Your task to perform on an android device: toggle data saver in the chrome app Image 0: 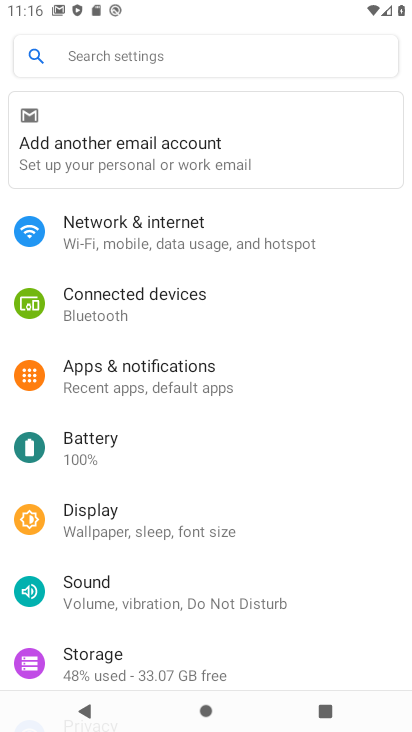
Step 0: press home button
Your task to perform on an android device: toggle data saver in the chrome app Image 1: 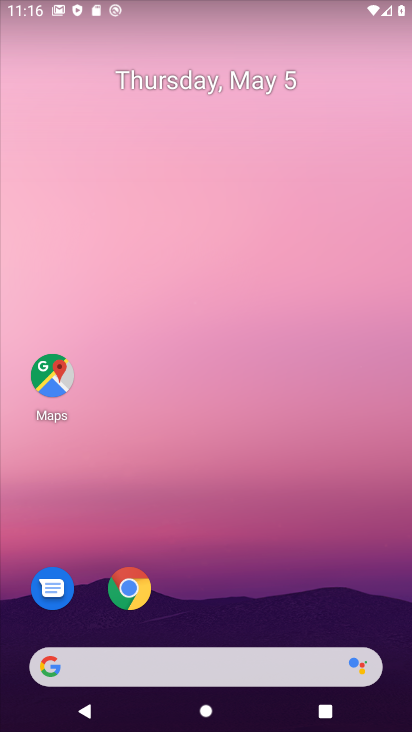
Step 1: drag from (137, 667) to (280, 150)
Your task to perform on an android device: toggle data saver in the chrome app Image 2: 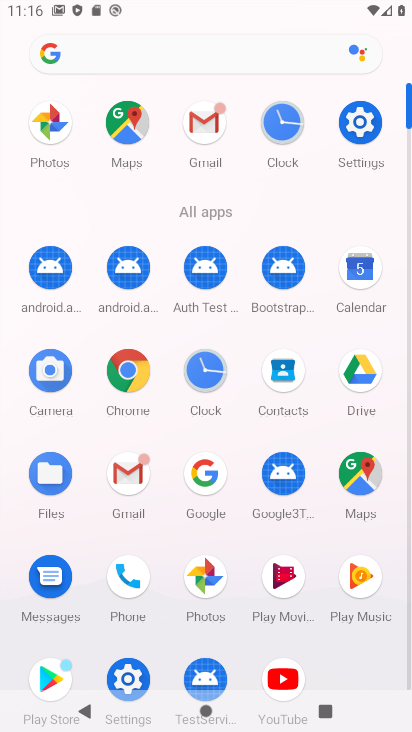
Step 2: click (132, 369)
Your task to perform on an android device: toggle data saver in the chrome app Image 3: 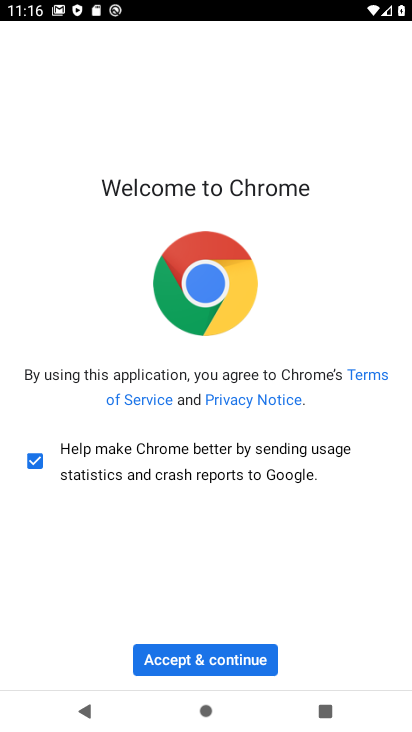
Step 3: click (183, 651)
Your task to perform on an android device: toggle data saver in the chrome app Image 4: 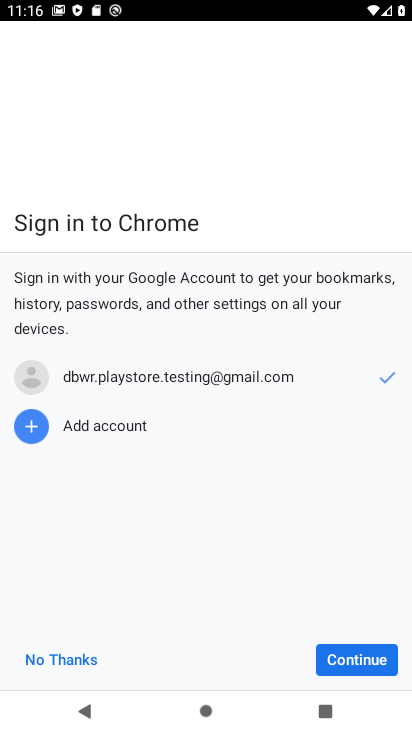
Step 4: click (335, 657)
Your task to perform on an android device: toggle data saver in the chrome app Image 5: 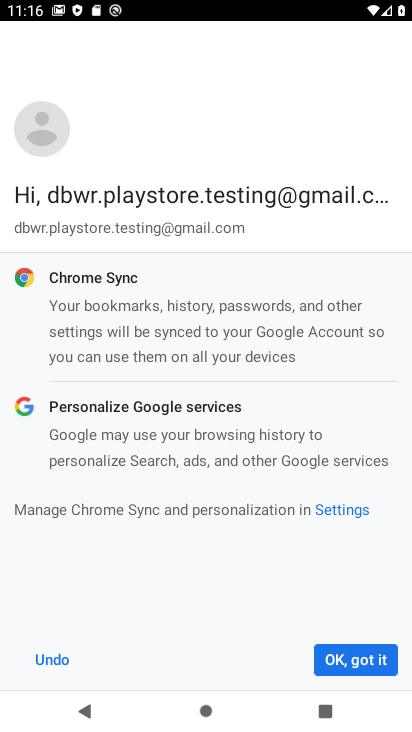
Step 5: click (335, 657)
Your task to perform on an android device: toggle data saver in the chrome app Image 6: 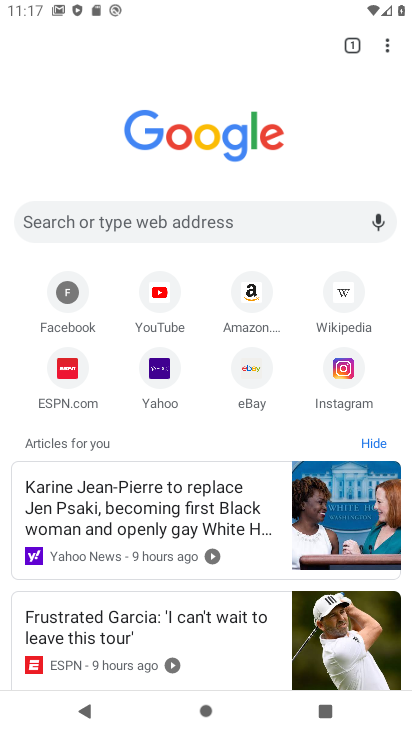
Step 6: drag from (386, 49) to (251, 382)
Your task to perform on an android device: toggle data saver in the chrome app Image 7: 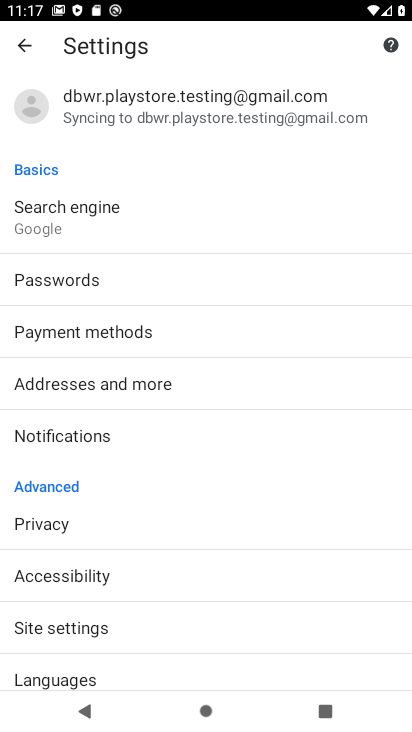
Step 7: drag from (145, 607) to (270, 371)
Your task to perform on an android device: toggle data saver in the chrome app Image 8: 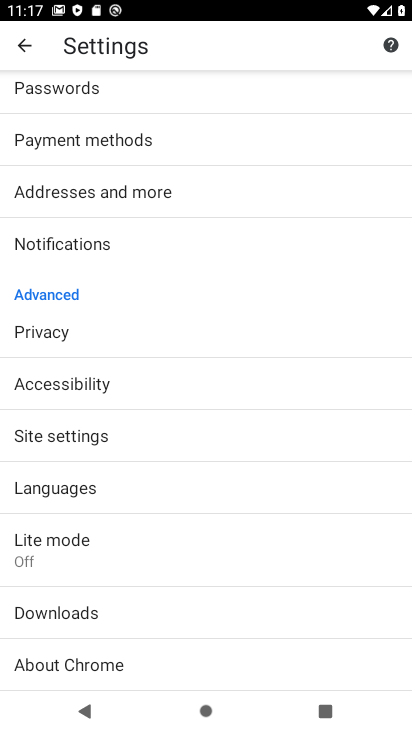
Step 8: click (56, 542)
Your task to perform on an android device: toggle data saver in the chrome app Image 9: 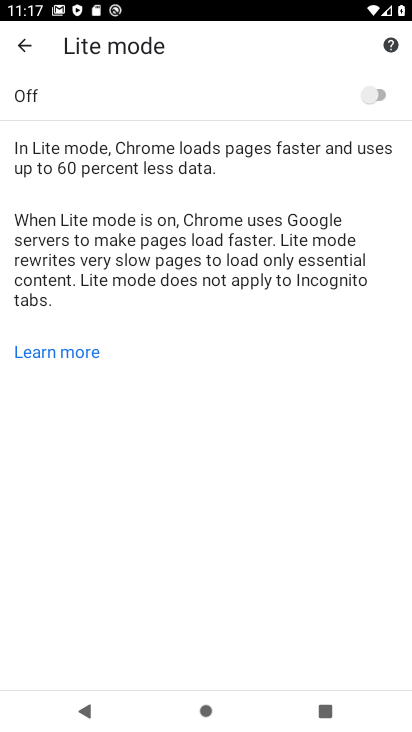
Step 9: click (381, 100)
Your task to perform on an android device: toggle data saver in the chrome app Image 10: 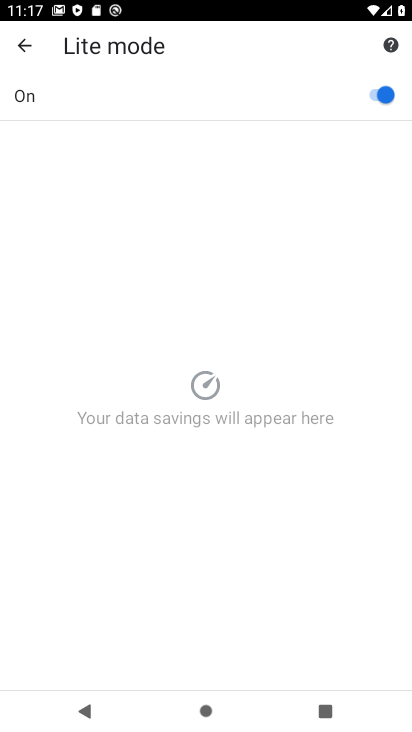
Step 10: task complete